Your task to perform on an android device: see creations saved in the google photos Image 0: 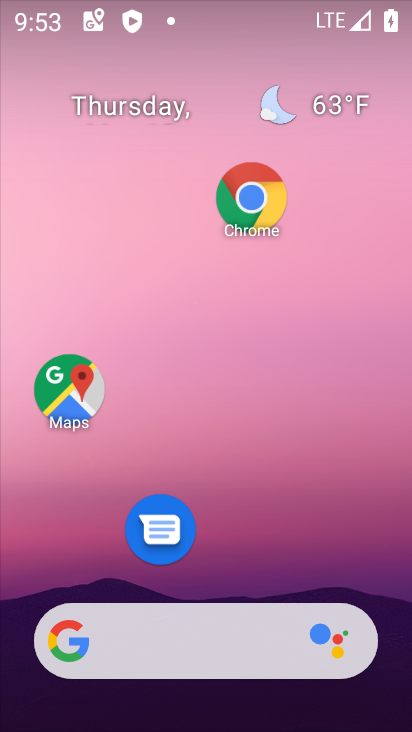
Step 0: drag from (274, 649) to (260, 124)
Your task to perform on an android device: see creations saved in the google photos Image 1: 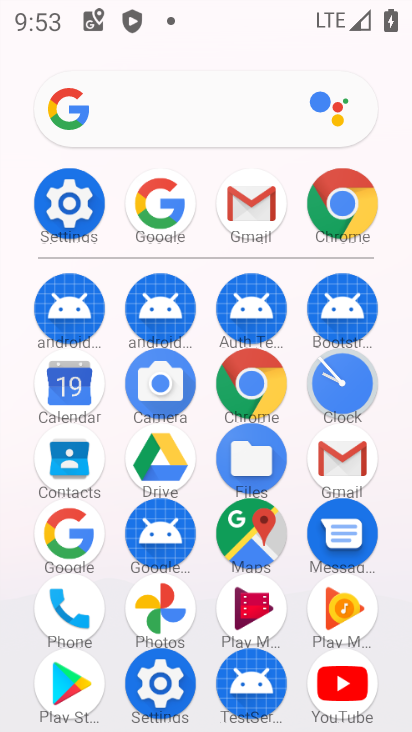
Step 1: drag from (227, 511) to (258, 94)
Your task to perform on an android device: see creations saved in the google photos Image 2: 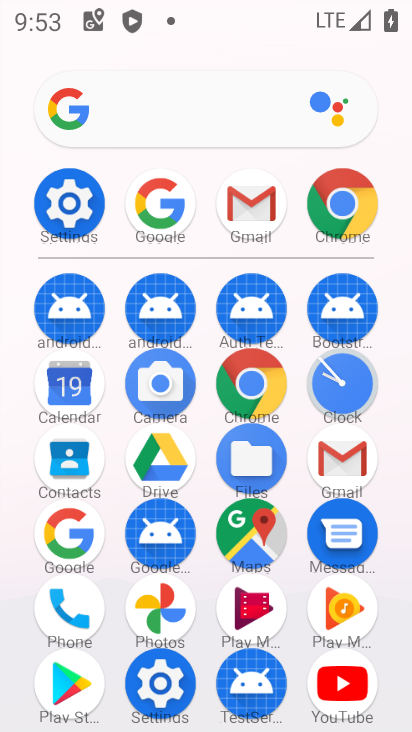
Step 2: click (163, 611)
Your task to perform on an android device: see creations saved in the google photos Image 3: 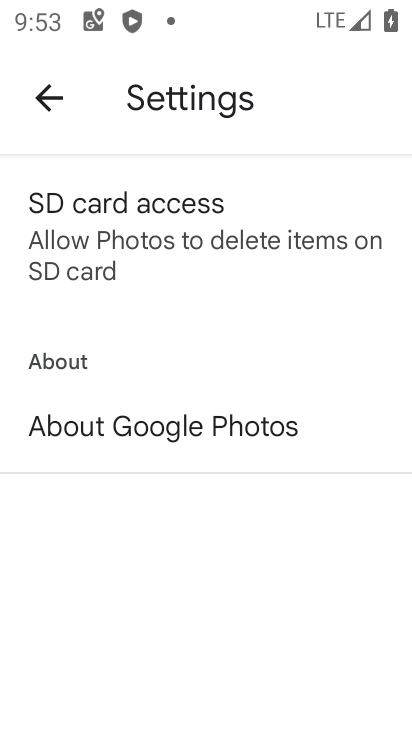
Step 3: click (57, 102)
Your task to perform on an android device: see creations saved in the google photos Image 4: 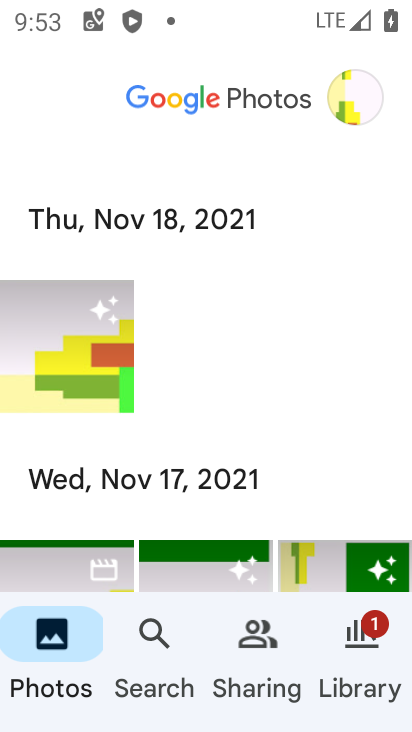
Step 4: click (356, 664)
Your task to perform on an android device: see creations saved in the google photos Image 5: 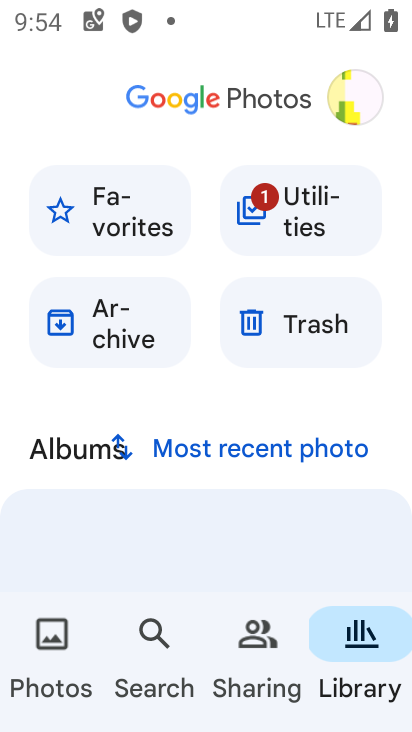
Step 5: task complete